Your task to perform on an android device: toggle translation in the chrome app Image 0: 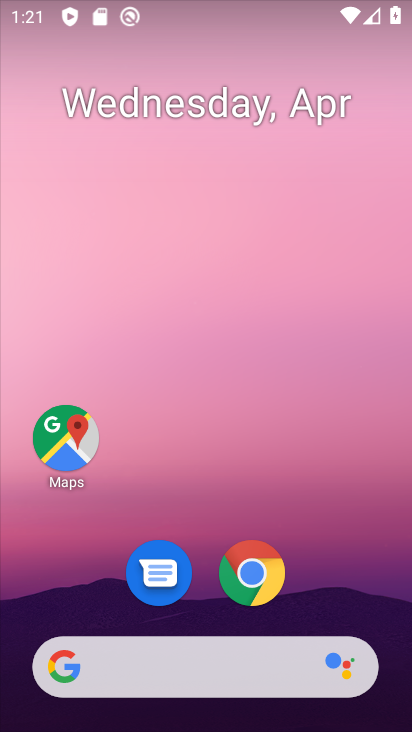
Step 0: drag from (201, 661) to (272, 59)
Your task to perform on an android device: toggle translation in the chrome app Image 1: 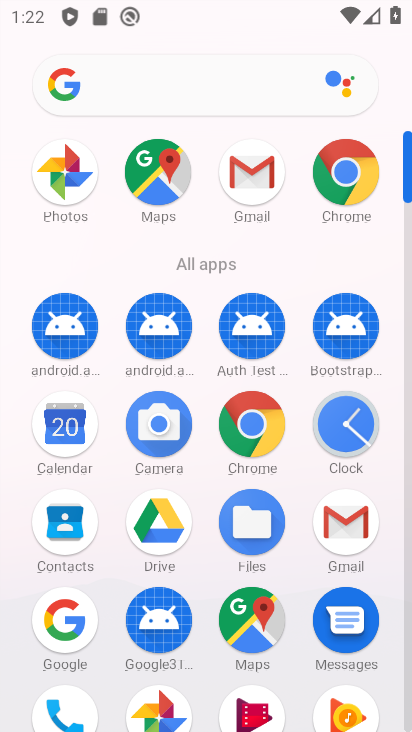
Step 1: click (347, 184)
Your task to perform on an android device: toggle translation in the chrome app Image 2: 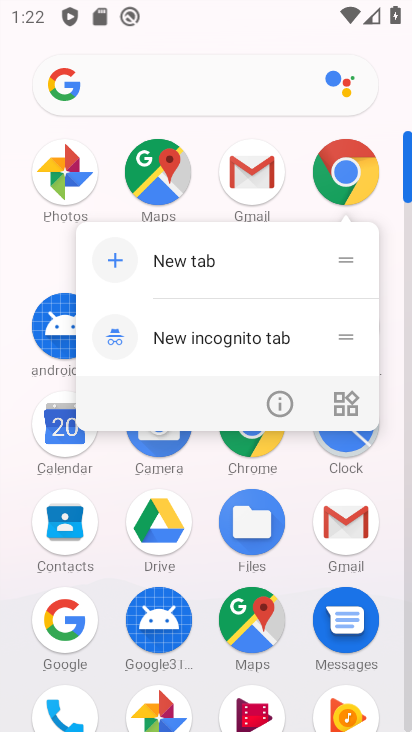
Step 2: click (344, 183)
Your task to perform on an android device: toggle translation in the chrome app Image 3: 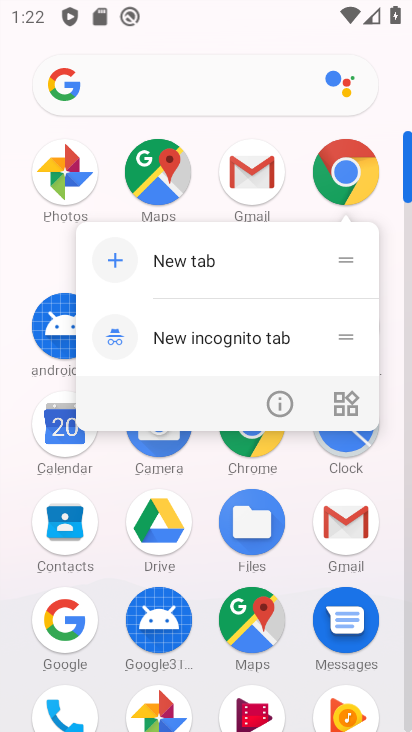
Step 3: click (349, 171)
Your task to perform on an android device: toggle translation in the chrome app Image 4: 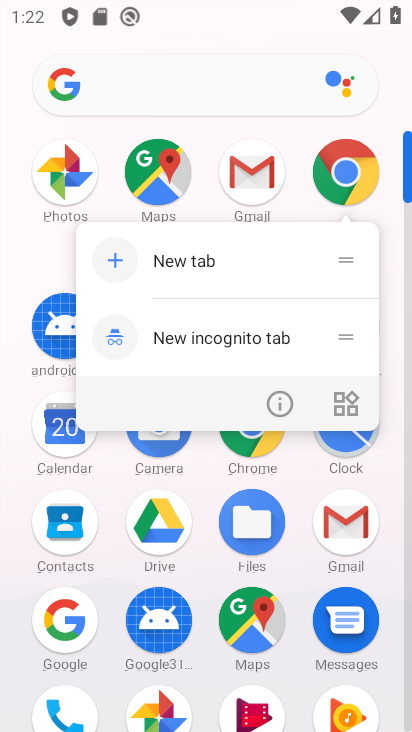
Step 4: click (347, 178)
Your task to perform on an android device: toggle translation in the chrome app Image 5: 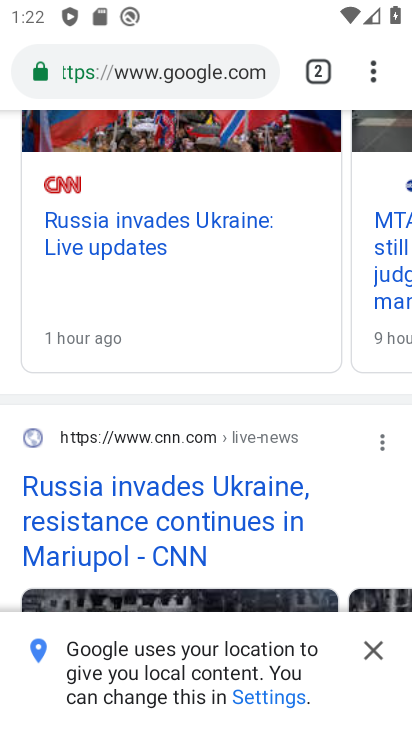
Step 5: click (372, 83)
Your task to perform on an android device: toggle translation in the chrome app Image 6: 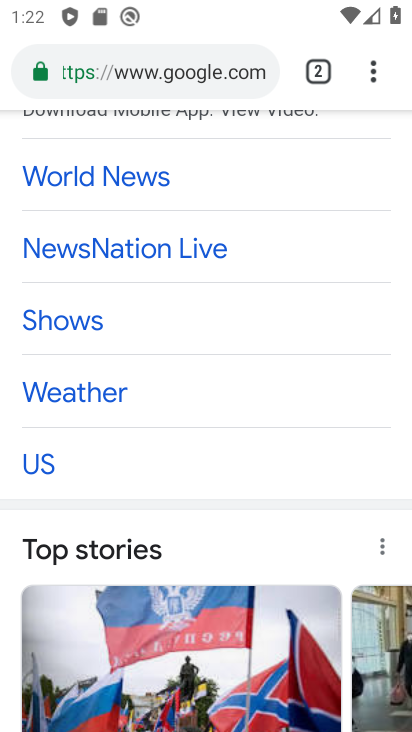
Step 6: click (364, 83)
Your task to perform on an android device: toggle translation in the chrome app Image 7: 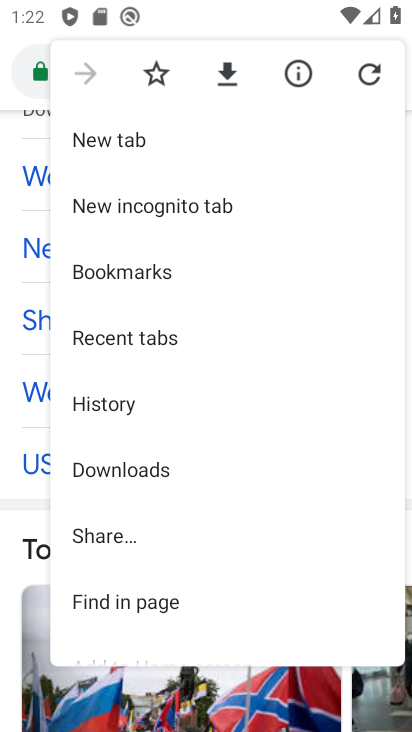
Step 7: drag from (229, 526) to (324, 135)
Your task to perform on an android device: toggle translation in the chrome app Image 8: 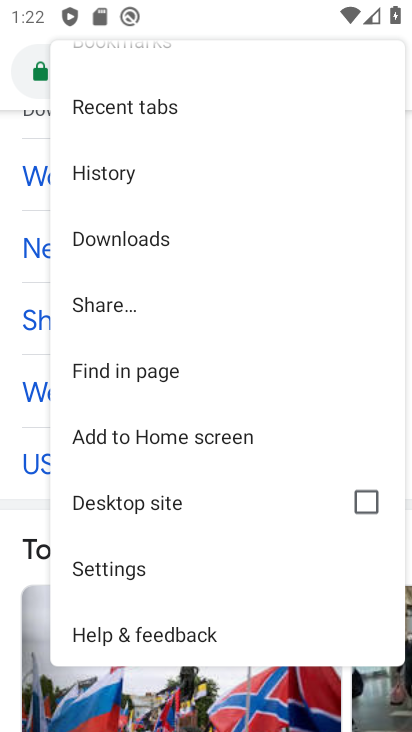
Step 8: click (119, 569)
Your task to perform on an android device: toggle translation in the chrome app Image 9: 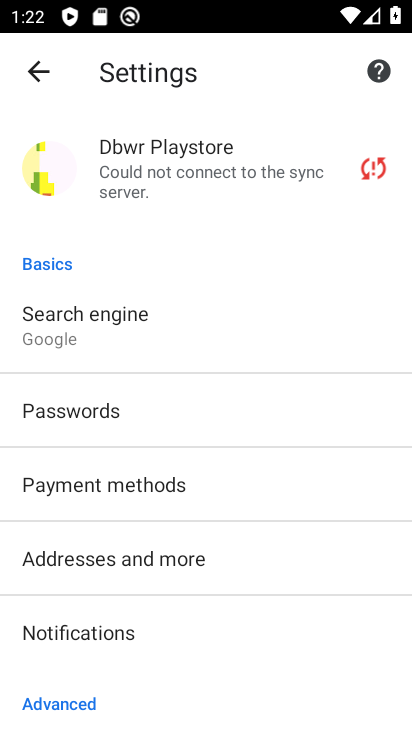
Step 9: drag from (212, 628) to (316, 266)
Your task to perform on an android device: toggle translation in the chrome app Image 10: 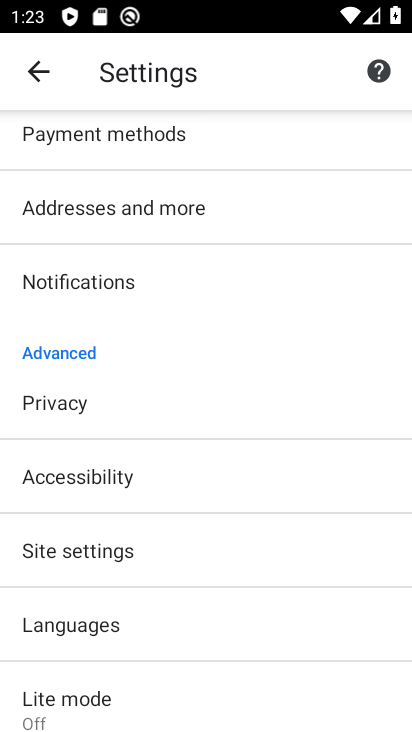
Step 10: click (114, 622)
Your task to perform on an android device: toggle translation in the chrome app Image 11: 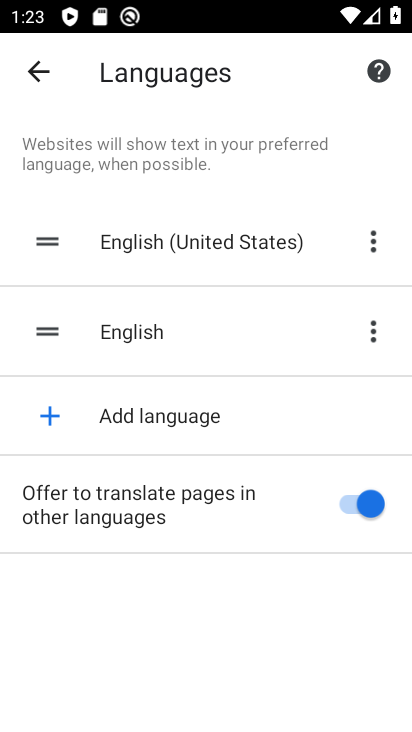
Step 11: click (353, 506)
Your task to perform on an android device: toggle translation in the chrome app Image 12: 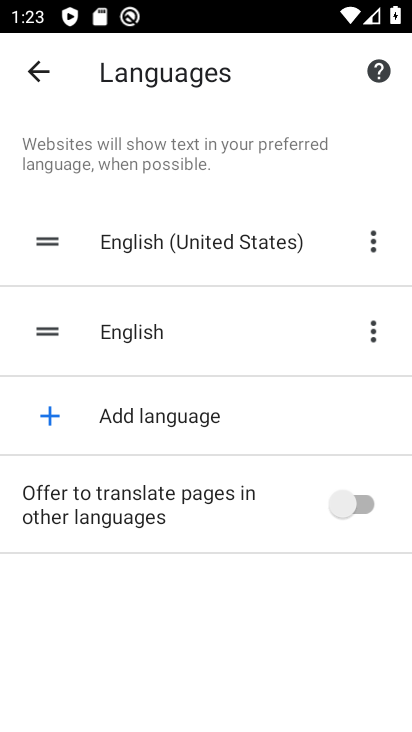
Step 12: task complete